Your task to perform on an android device: Open Yahoo.com Image 0: 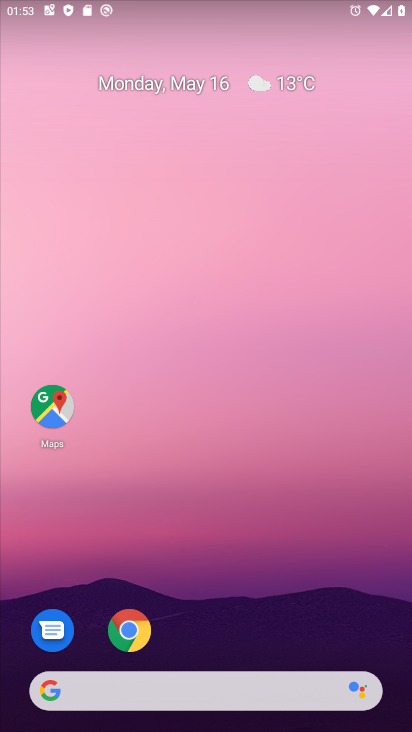
Step 0: click (127, 617)
Your task to perform on an android device: Open Yahoo.com Image 1: 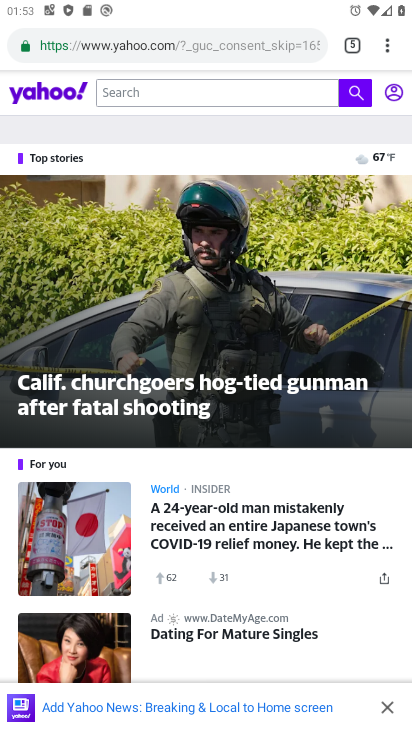
Step 1: task complete